Your task to perform on an android device: Search for vegetarian restaurants on Maps Image 0: 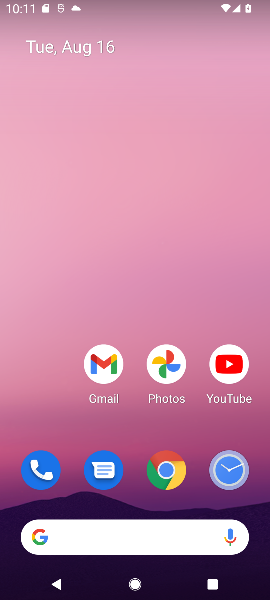
Step 0: click (50, 409)
Your task to perform on an android device: Search for vegetarian restaurants on Maps Image 1: 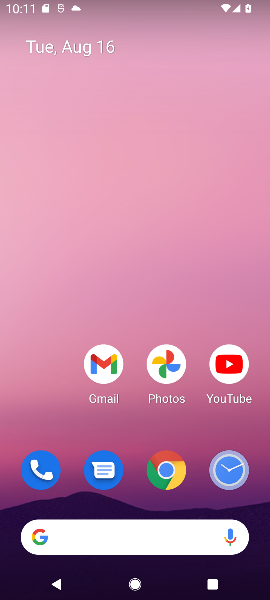
Step 1: drag from (51, 399) to (109, 28)
Your task to perform on an android device: Search for vegetarian restaurants on Maps Image 2: 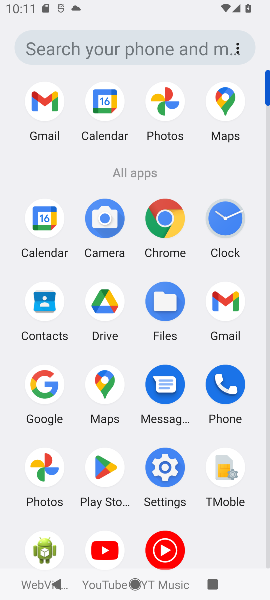
Step 2: click (226, 97)
Your task to perform on an android device: Search for vegetarian restaurants on Maps Image 3: 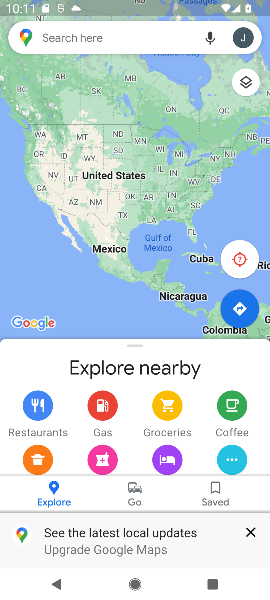
Step 3: click (136, 34)
Your task to perform on an android device: Search for vegetarian restaurants on Maps Image 4: 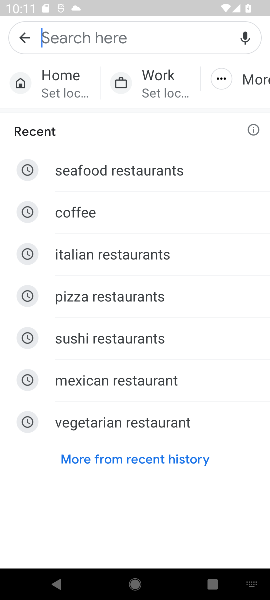
Step 4: click (112, 424)
Your task to perform on an android device: Search for vegetarian restaurants on Maps Image 5: 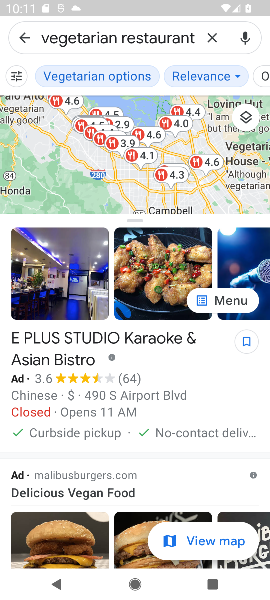
Step 5: task complete